Your task to perform on an android device: View the shopping cart on target. Image 0: 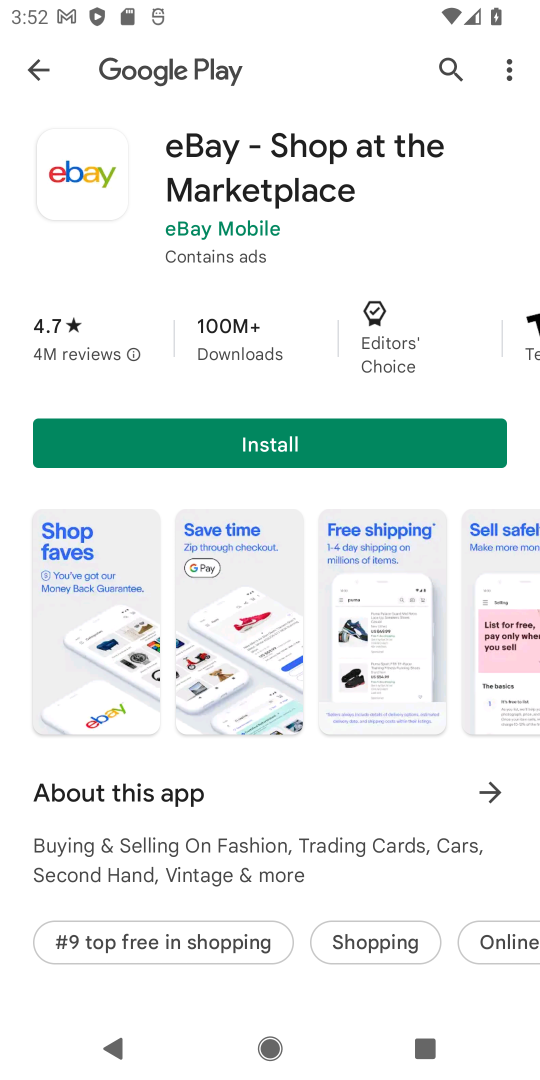
Step 0: press home button
Your task to perform on an android device: View the shopping cart on target. Image 1: 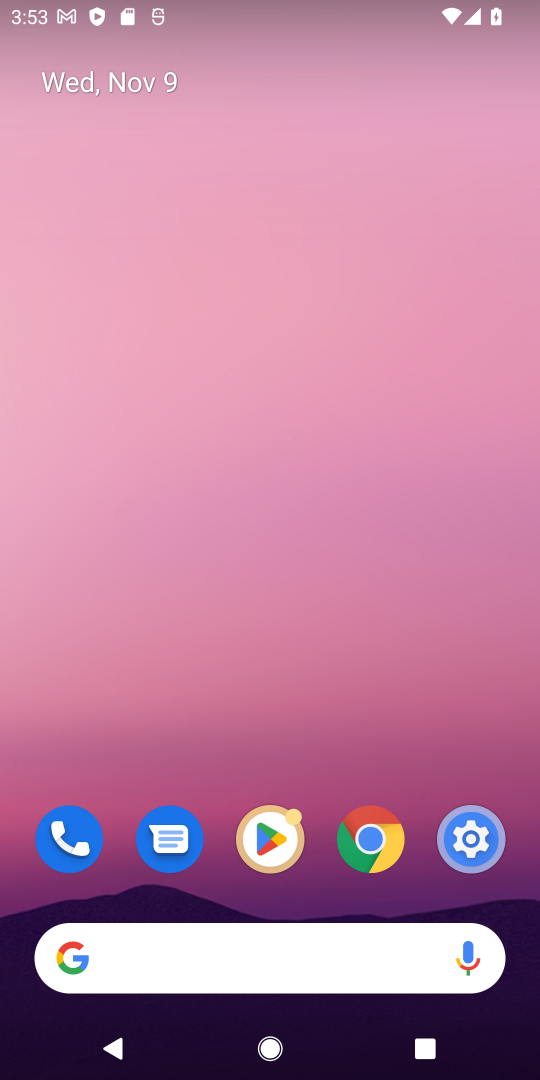
Step 1: click (224, 969)
Your task to perform on an android device: View the shopping cart on target. Image 2: 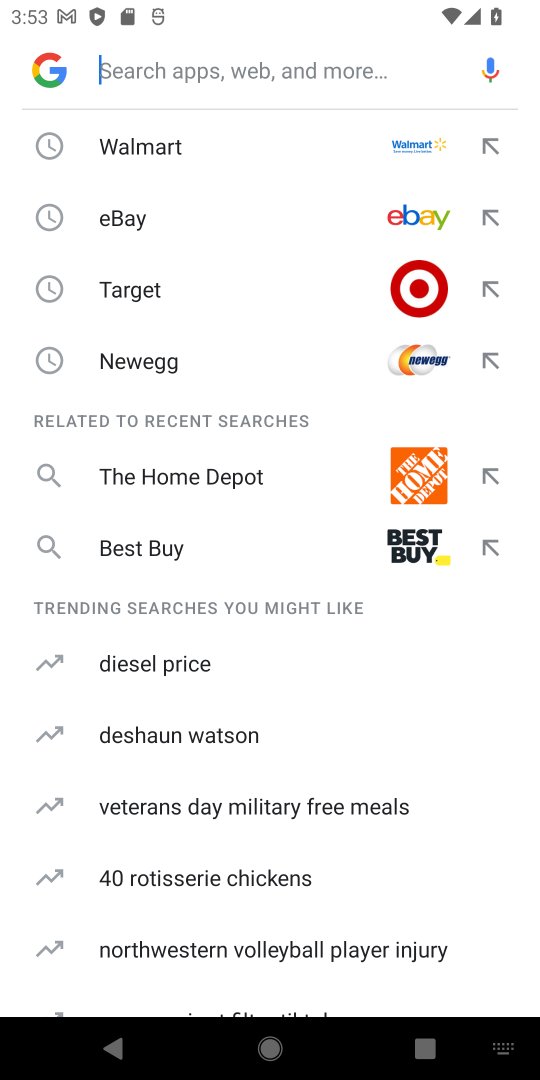
Step 2: type "target"
Your task to perform on an android device: View the shopping cart on target. Image 3: 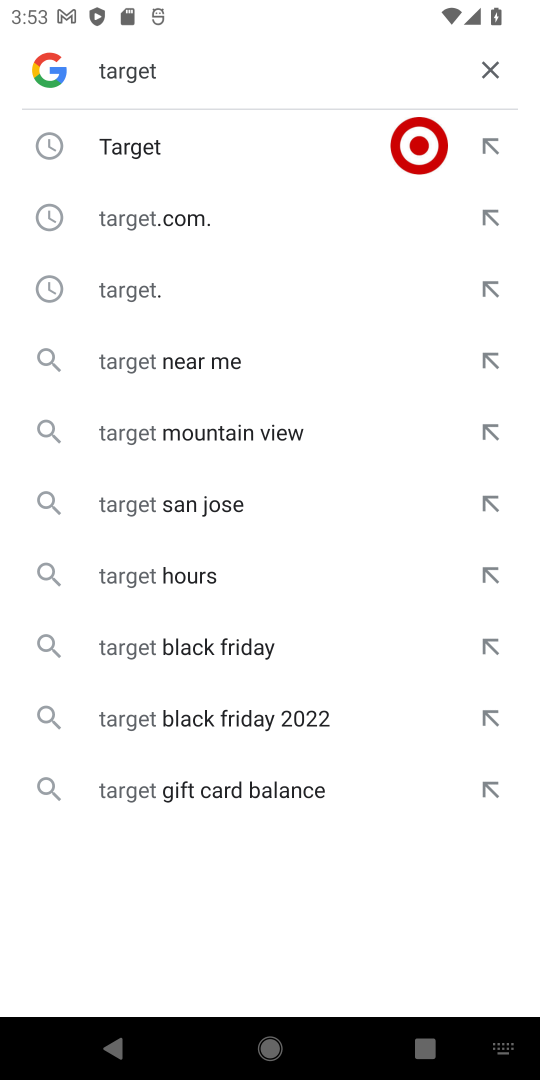
Step 3: click (132, 133)
Your task to perform on an android device: View the shopping cart on target. Image 4: 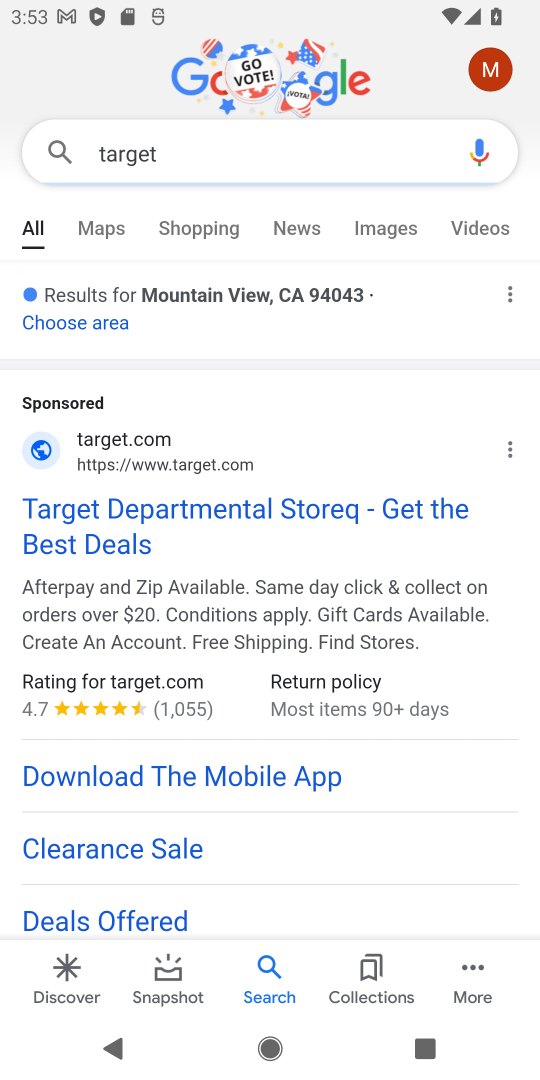
Step 4: click (113, 540)
Your task to perform on an android device: View the shopping cart on target. Image 5: 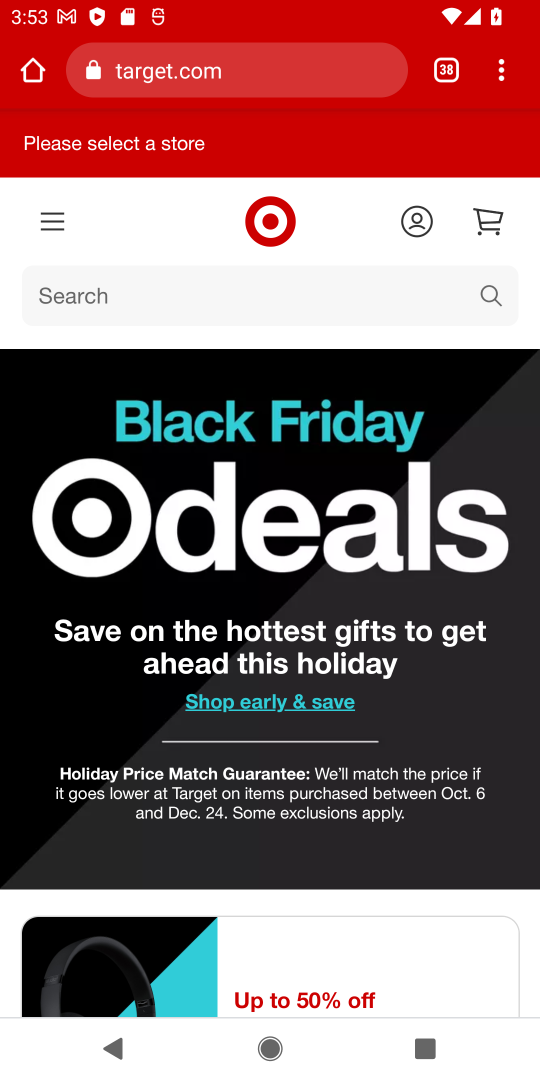
Step 5: task complete